Your task to perform on an android device: turn off smart reply in the gmail app Image 0: 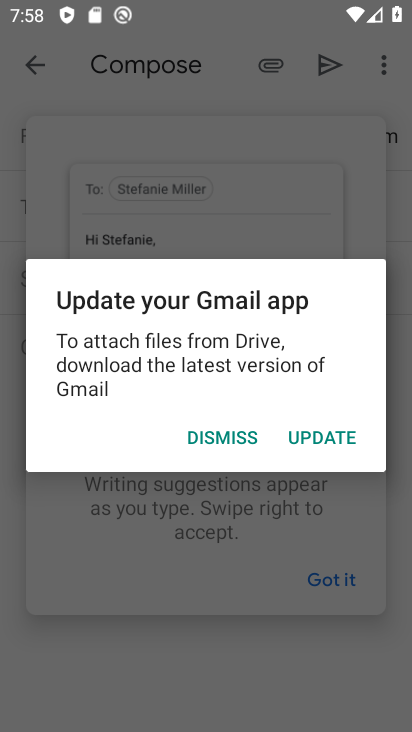
Step 0: press home button
Your task to perform on an android device: turn off smart reply in the gmail app Image 1: 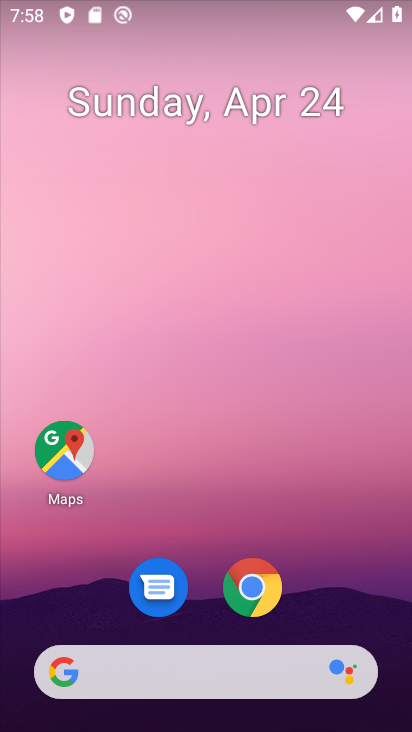
Step 1: drag from (338, 574) to (307, 128)
Your task to perform on an android device: turn off smart reply in the gmail app Image 2: 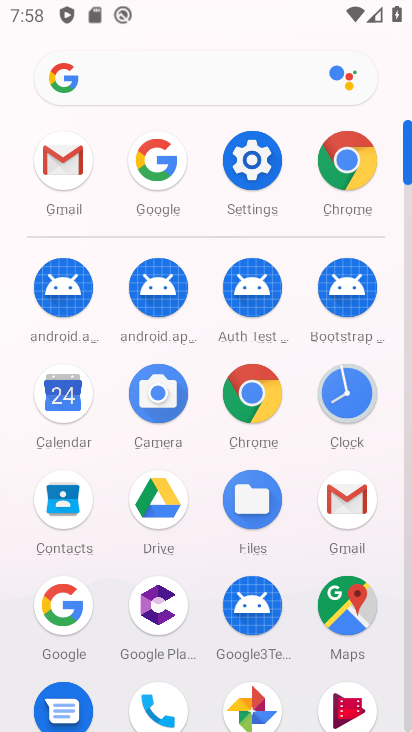
Step 2: click (52, 181)
Your task to perform on an android device: turn off smart reply in the gmail app Image 3: 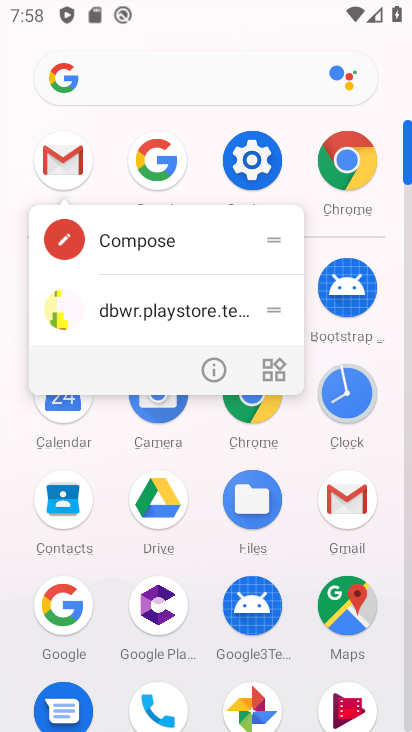
Step 3: click (63, 173)
Your task to perform on an android device: turn off smart reply in the gmail app Image 4: 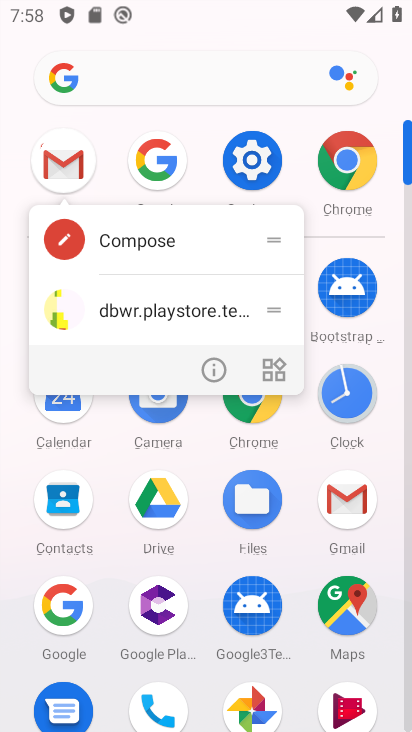
Step 4: click (65, 169)
Your task to perform on an android device: turn off smart reply in the gmail app Image 5: 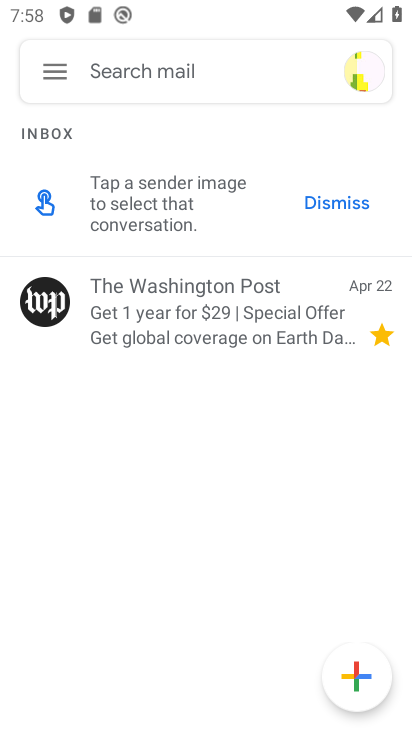
Step 5: click (58, 63)
Your task to perform on an android device: turn off smart reply in the gmail app Image 6: 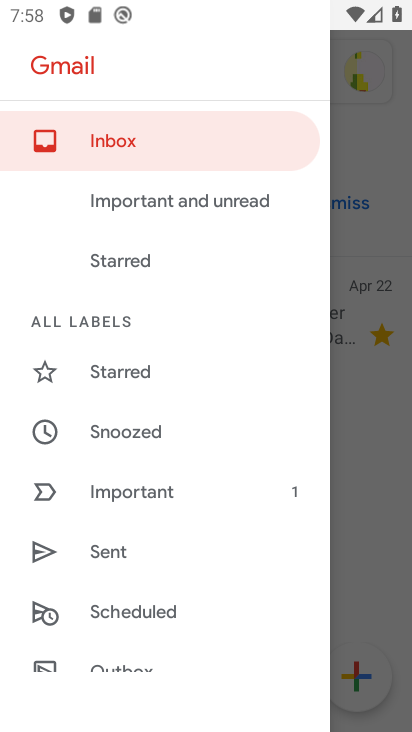
Step 6: drag from (205, 558) to (201, 240)
Your task to perform on an android device: turn off smart reply in the gmail app Image 7: 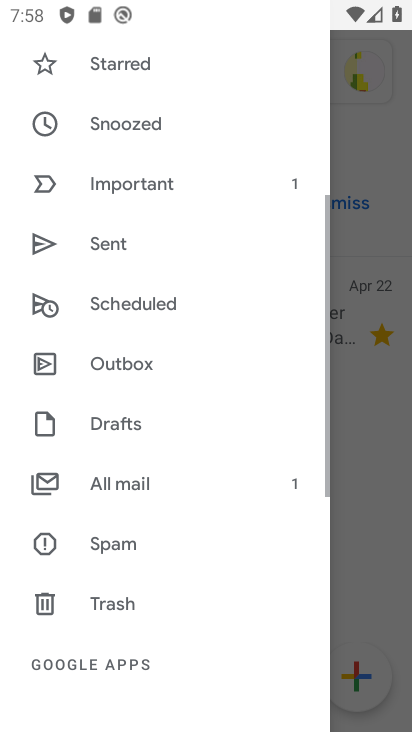
Step 7: drag from (168, 620) to (173, 227)
Your task to perform on an android device: turn off smart reply in the gmail app Image 8: 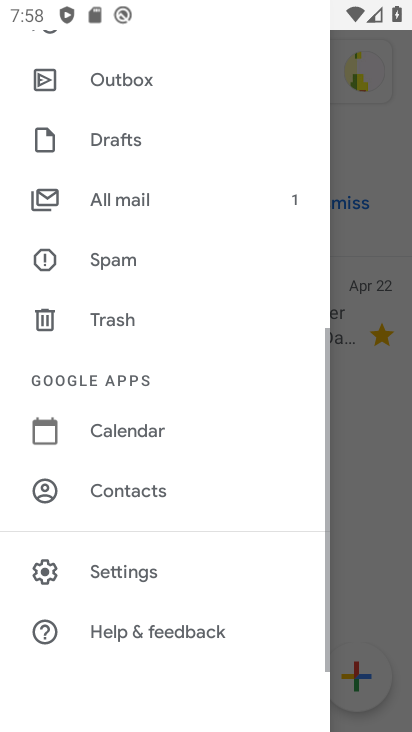
Step 8: click (111, 568)
Your task to perform on an android device: turn off smart reply in the gmail app Image 9: 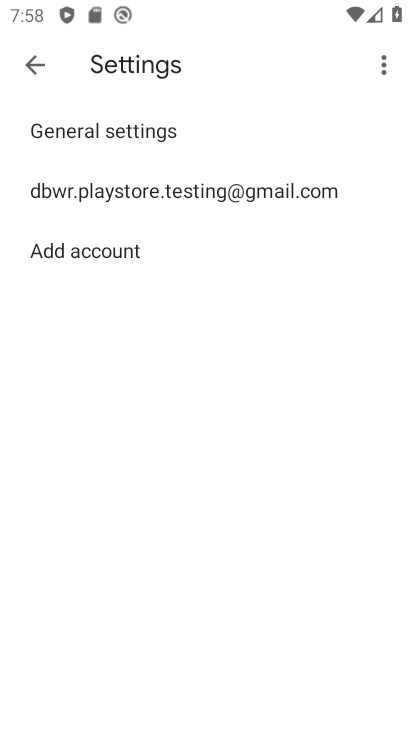
Step 9: click (179, 190)
Your task to perform on an android device: turn off smart reply in the gmail app Image 10: 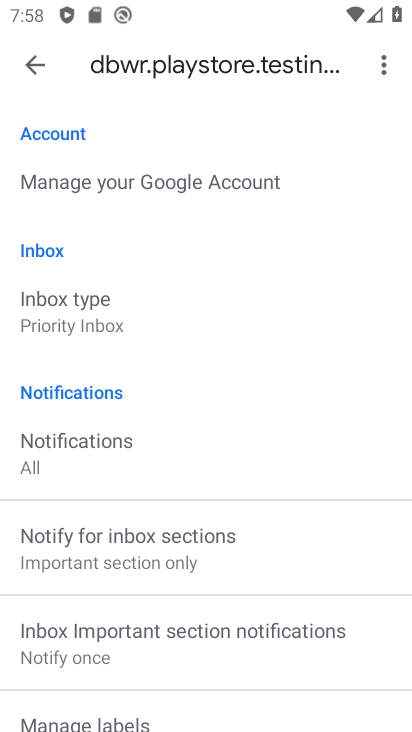
Step 10: drag from (196, 584) to (224, 301)
Your task to perform on an android device: turn off smart reply in the gmail app Image 11: 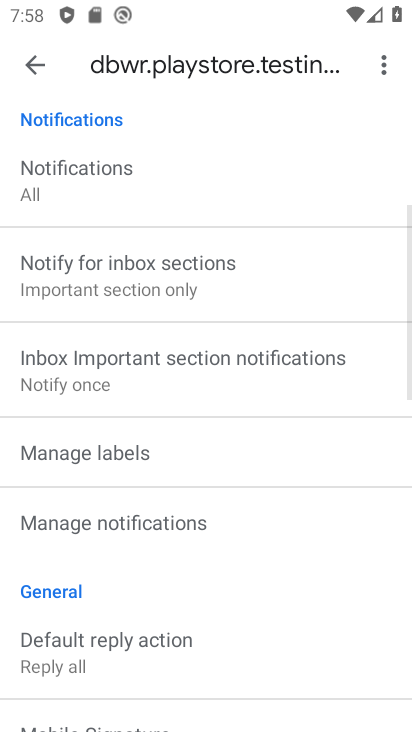
Step 11: drag from (254, 592) to (259, 258)
Your task to perform on an android device: turn off smart reply in the gmail app Image 12: 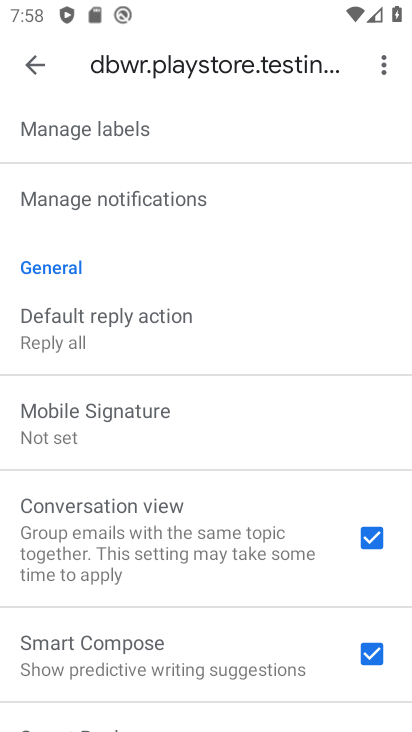
Step 12: drag from (191, 564) to (210, 351)
Your task to perform on an android device: turn off smart reply in the gmail app Image 13: 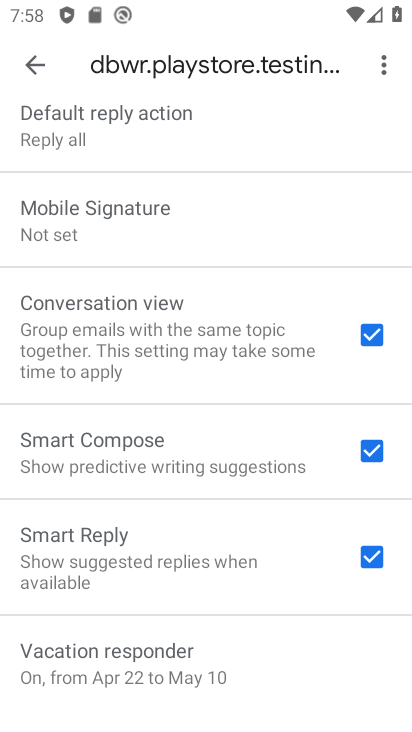
Step 13: click (370, 561)
Your task to perform on an android device: turn off smart reply in the gmail app Image 14: 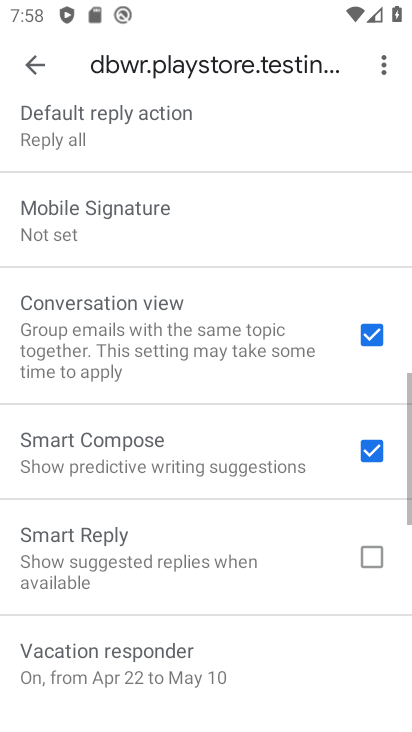
Step 14: task complete